Your task to perform on an android device: Add "asus rog" to the cart on bestbuy, then select checkout. Image 0: 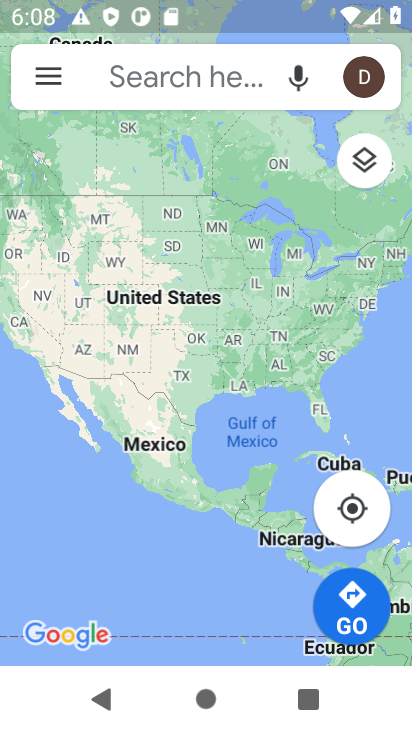
Step 0: press home button
Your task to perform on an android device: Add "asus rog" to the cart on bestbuy, then select checkout. Image 1: 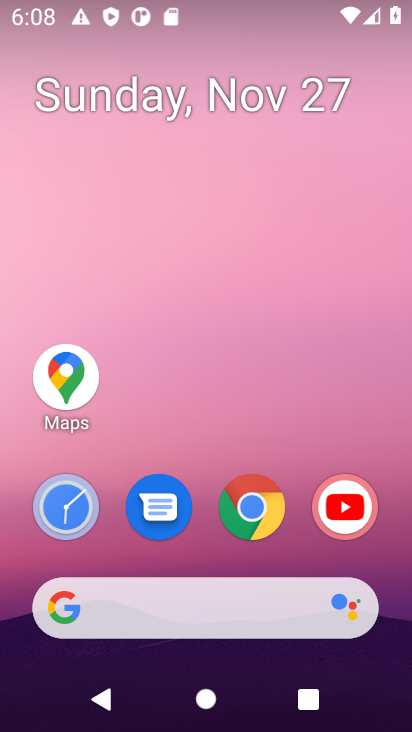
Step 1: click (246, 512)
Your task to perform on an android device: Add "asus rog" to the cart on bestbuy, then select checkout. Image 2: 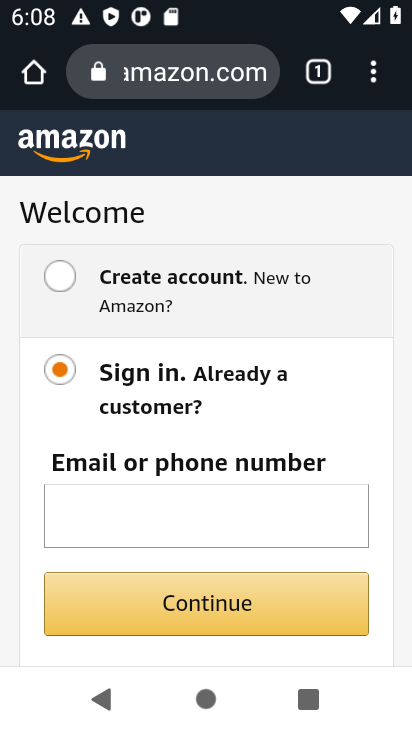
Step 2: click (182, 63)
Your task to perform on an android device: Add "asus rog" to the cart on bestbuy, then select checkout. Image 3: 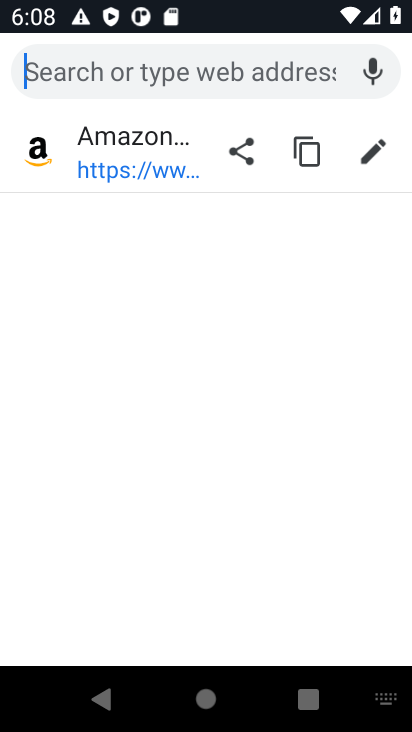
Step 3: type "besrbuy.com"
Your task to perform on an android device: Add "asus rog" to the cart on bestbuy, then select checkout. Image 4: 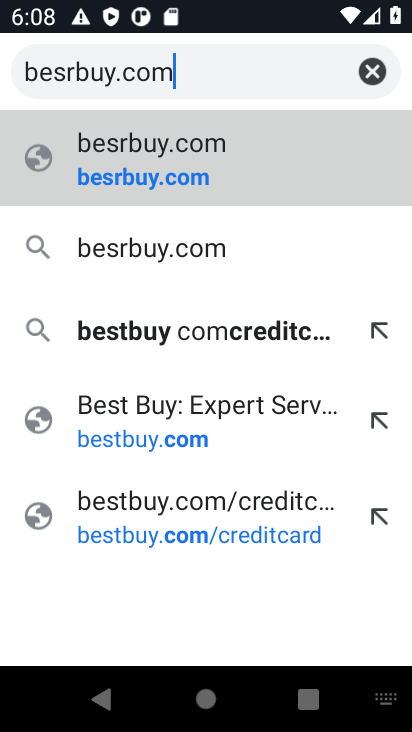
Step 4: click (66, 66)
Your task to perform on an android device: Add "asus rog" to the cart on bestbuy, then select checkout. Image 5: 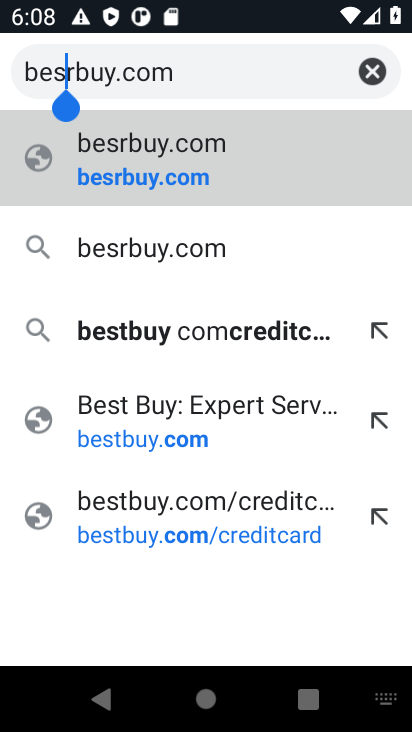
Step 5: click (153, 411)
Your task to perform on an android device: Add "asus rog" to the cart on bestbuy, then select checkout. Image 6: 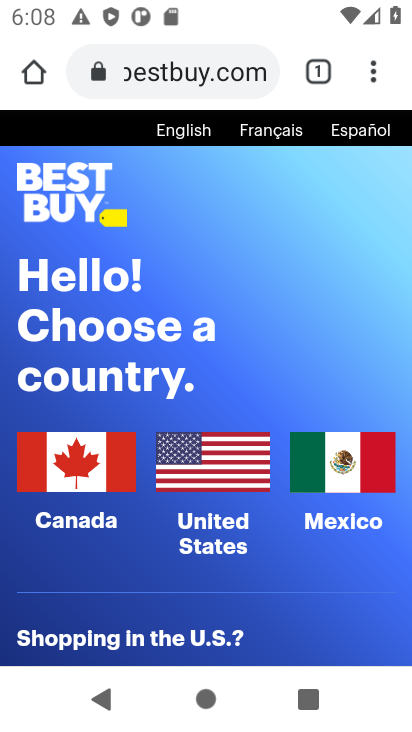
Step 6: click (206, 496)
Your task to perform on an android device: Add "asus rog" to the cart on bestbuy, then select checkout. Image 7: 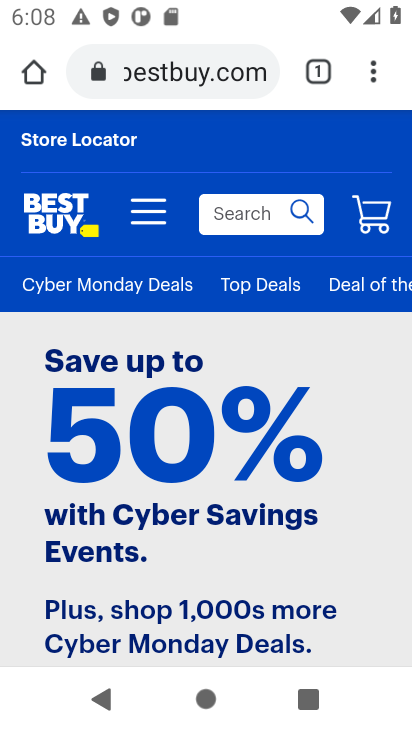
Step 7: click (225, 215)
Your task to perform on an android device: Add "asus rog" to the cart on bestbuy, then select checkout. Image 8: 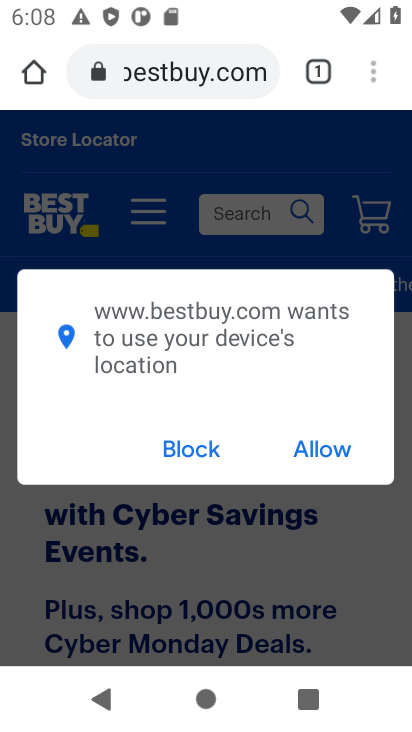
Step 8: click (334, 461)
Your task to perform on an android device: Add "asus rog" to the cart on bestbuy, then select checkout. Image 9: 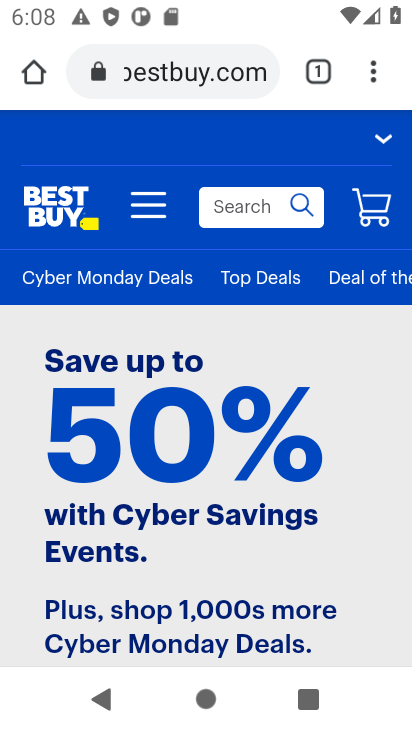
Step 9: click (326, 450)
Your task to perform on an android device: Add "asus rog" to the cart on bestbuy, then select checkout. Image 10: 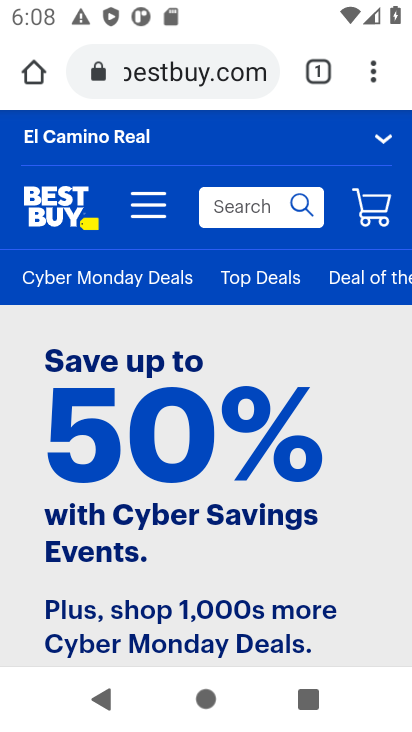
Step 10: click (243, 209)
Your task to perform on an android device: Add "asus rog" to the cart on bestbuy, then select checkout. Image 11: 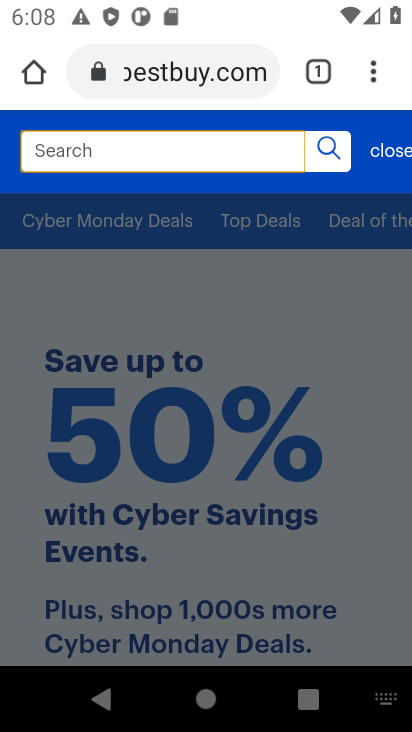
Step 11: type "asus rog"
Your task to perform on an android device: Add "asus rog" to the cart on bestbuy, then select checkout. Image 12: 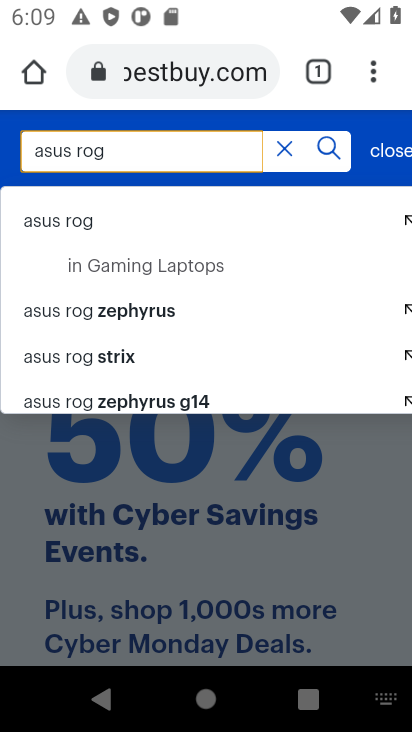
Step 12: click (76, 220)
Your task to perform on an android device: Add "asus rog" to the cart on bestbuy, then select checkout. Image 13: 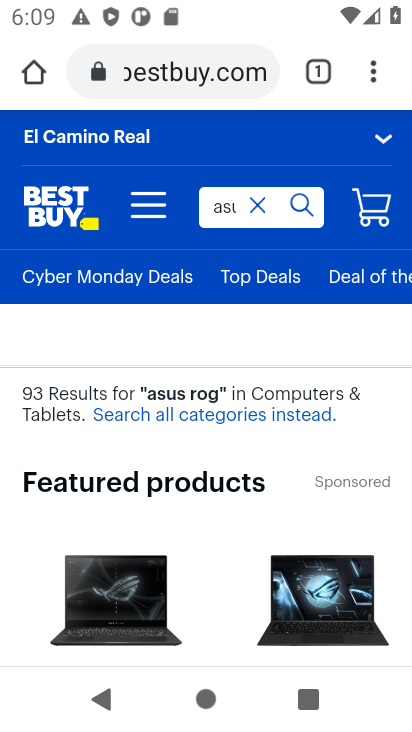
Step 13: drag from (226, 553) to (213, 303)
Your task to perform on an android device: Add "asus rog" to the cart on bestbuy, then select checkout. Image 14: 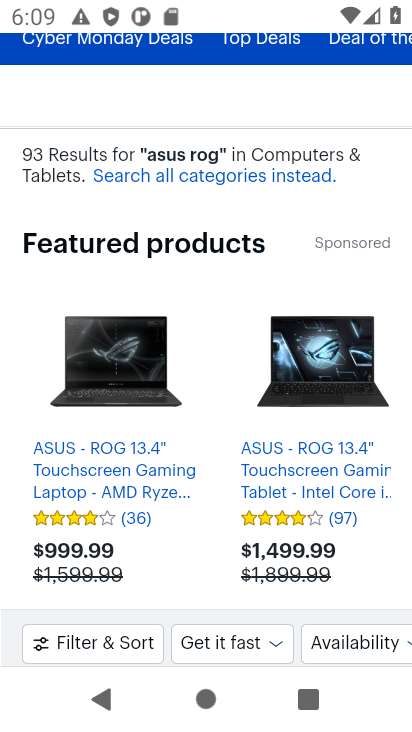
Step 14: click (125, 415)
Your task to perform on an android device: Add "asus rog" to the cart on bestbuy, then select checkout. Image 15: 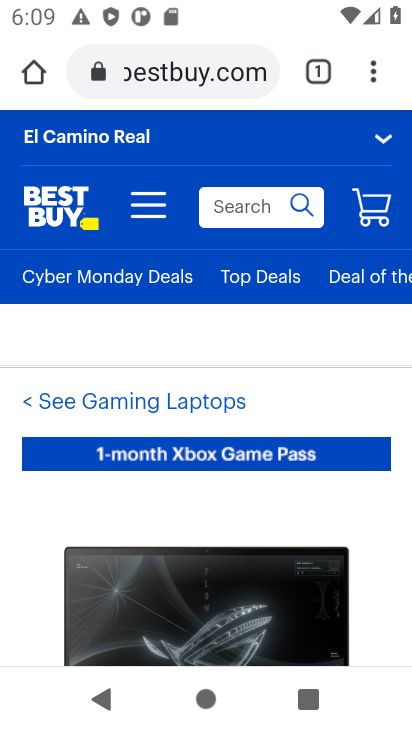
Step 15: drag from (278, 581) to (273, 220)
Your task to perform on an android device: Add "asus rog" to the cart on bestbuy, then select checkout. Image 16: 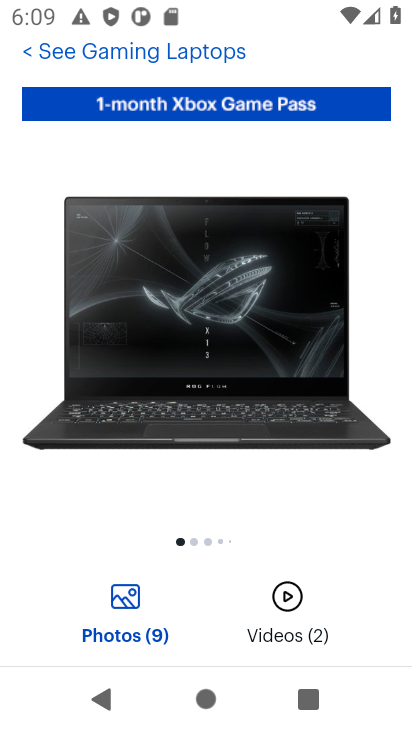
Step 16: drag from (191, 587) to (215, 79)
Your task to perform on an android device: Add "asus rog" to the cart on bestbuy, then select checkout. Image 17: 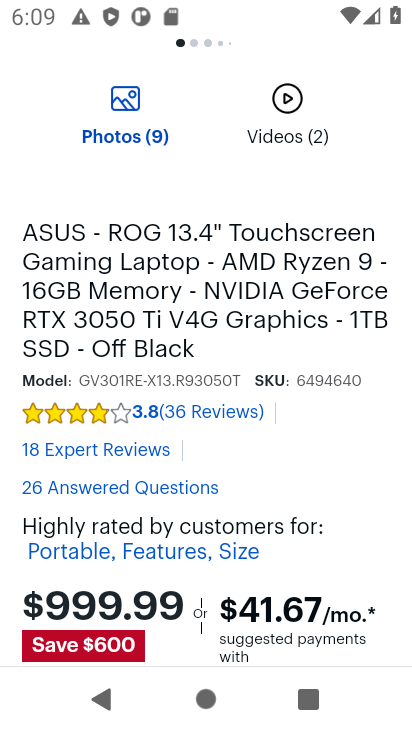
Step 17: drag from (238, 493) to (247, 45)
Your task to perform on an android device: Add "asus rog" to the cart on bestbuy, then select checkout. Image 18: 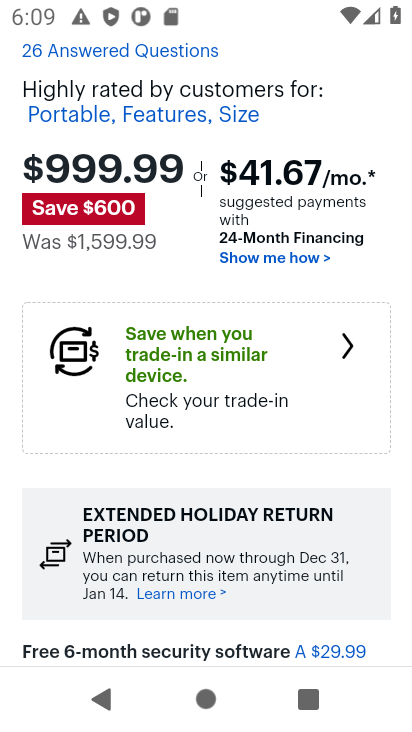
Step 18: drag from (203, 577) to (256, 155)
Your task to perform on an android device: Add "asus rog" to the cart on bestbuy, then select checkout. Image 19: 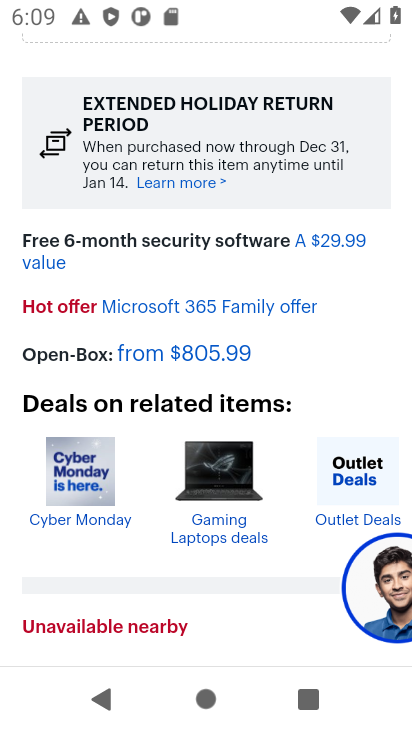
Step 19: drag from (195, 619) to (188, 237)
Your task to perform on an android device: Add "asus rog" to the cart on bestbuy, then select checkout. Image 20: 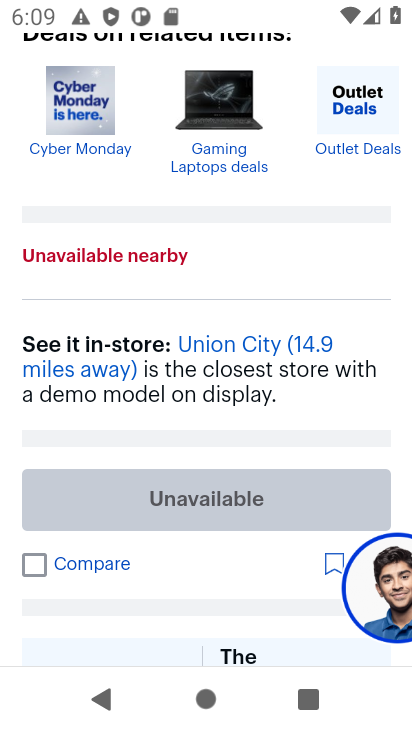
Step 20: press back button
Your task to perform on an android device: Add "asus rog" to the cart on bestbuy, then select checkout. Image 21: 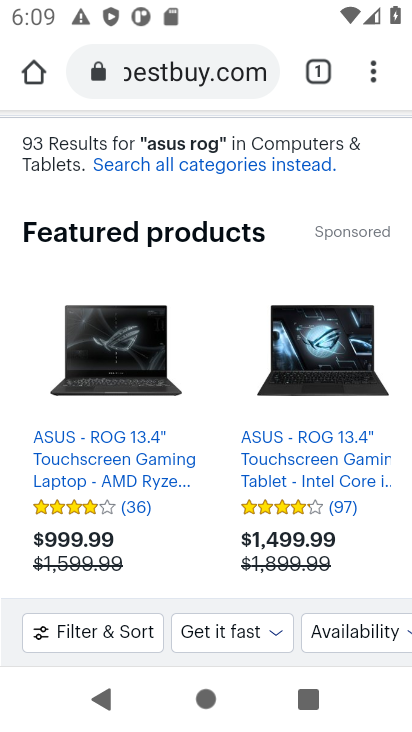
Step 21: click (314, 386)
Your task to perform on an android device: Add "asus rog" to the cart on bestbuy, then select checkout. Image 22: 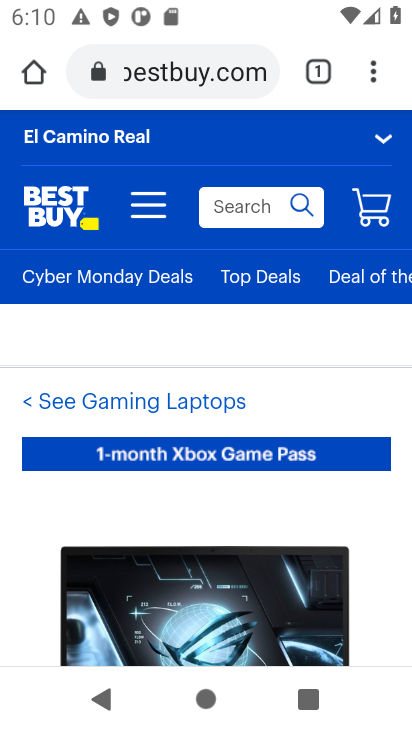
Step 22: drag from (258, 598) to (204, 266)
Your task to perform on an android device: Add "asus rog" to the cart on bestbuy, then select checkout. Image 23: 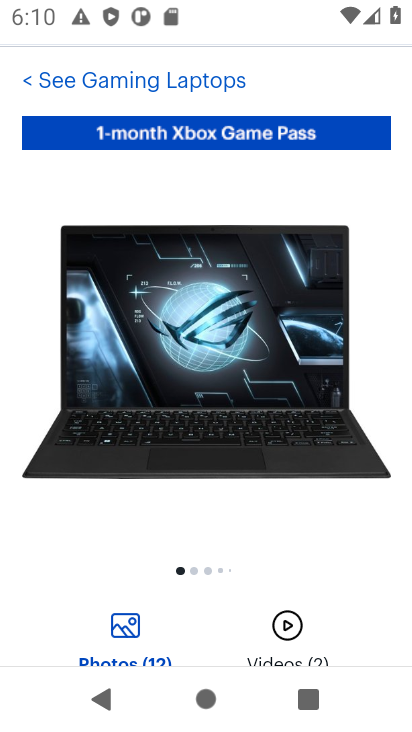
Step 23: drag from (218, 580) to (256, 249)
Your task to perform on an android device: Add "asus rog" to the cart on bestbuy, then select checkout. Image 24: 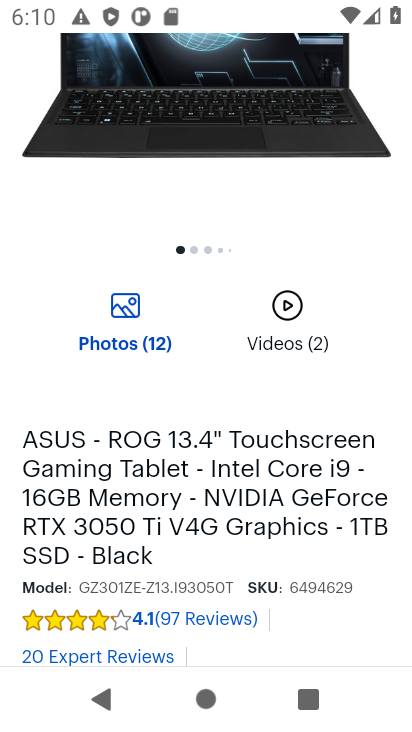
Step 24: drag from (233, 564) to (262, 269)
Your task to perform on an android device: Add "asus rog" to the cart on bestbuy, then select checkout. Image 25: 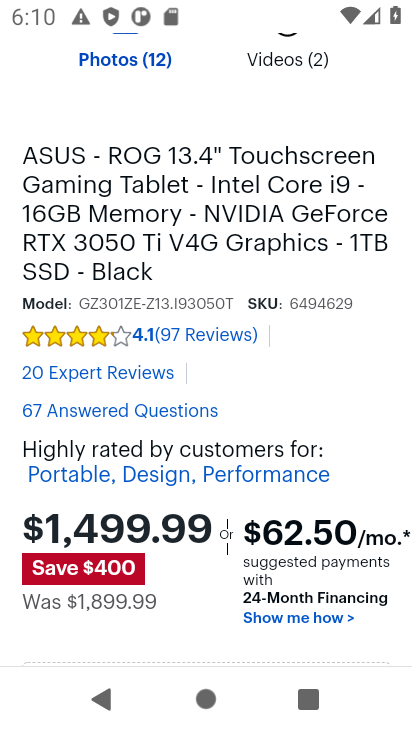
Step 25: drag from (249, 594) to (273, 313)
Your task to perform on an android device: Add "asus rog" to the cart on bestbuy, then select checkout. Image 26: 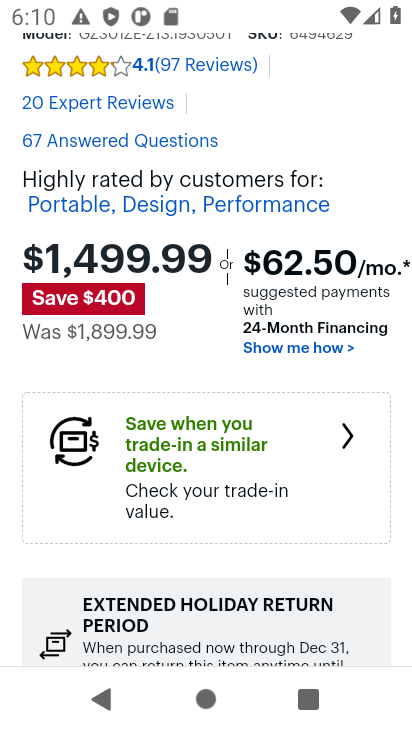
Step 26: drag from (235, 611) to (263, 359)
Your task to perform on an android device: Add "asus rog" to the cart on bestbuy, then select checkout. Image 27: 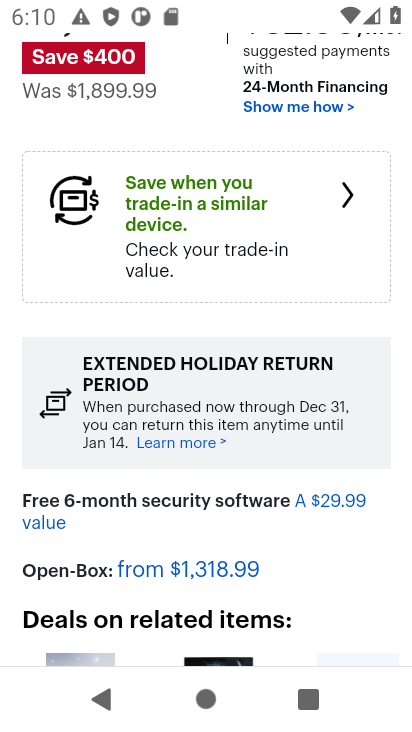
Step 27: drag from (255, 580) to (290, 258)
Your task to perform on an android device: Add "asus rog" to the cart on bestbuy, then select checkout. Image 28: 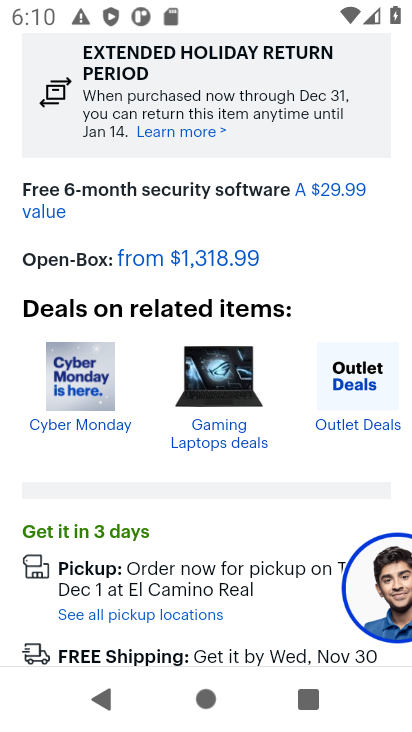
Step 28: drag from (220, 616) to (218, 379)
Your task to perform on an android device: Add "asus rog" to the cart on bestbuy, then select checkout. Image 29: 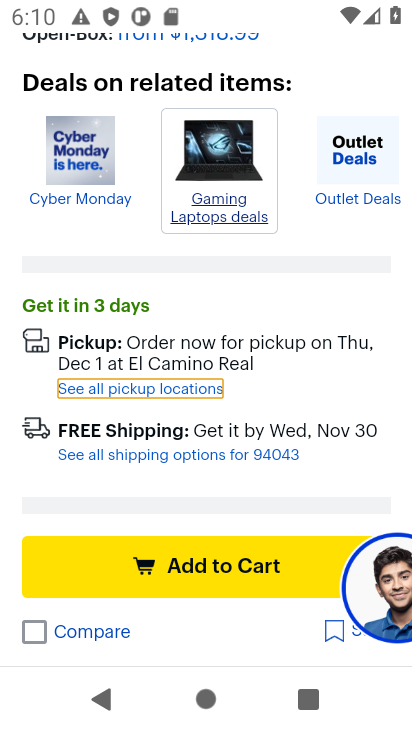
Step 29: click (199, 563)
Your task to perform on an android device: Add "asus rog" to the cart on bestbuy, then select checkout. Image 30: 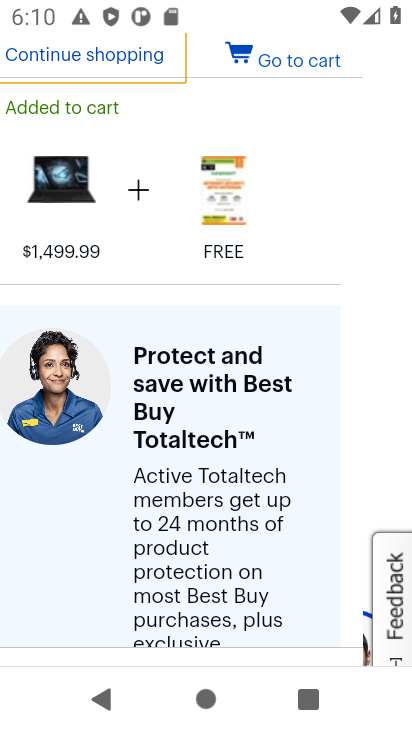
Step 30: click (268, 54)
Your task to perform on an android device: Add "asus rog" to the cart on bestbuy, then select checkout. Image 31: 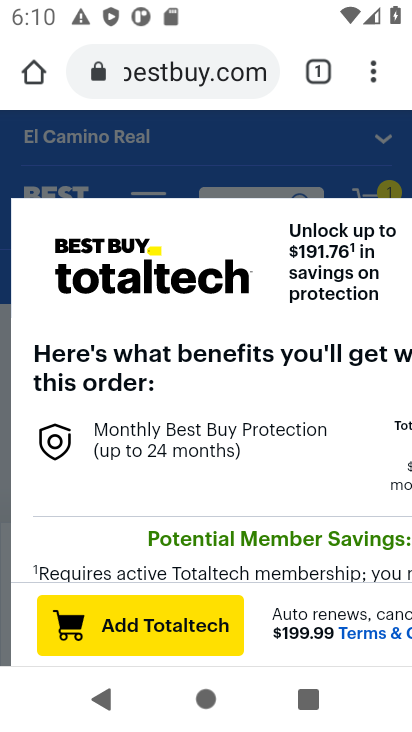
Step 31: drag from (340, 234) to (31, 257)
Your task to perform on an android device: Add "asus rog" to the cart on bestbuy, then select checkout. Image 32: 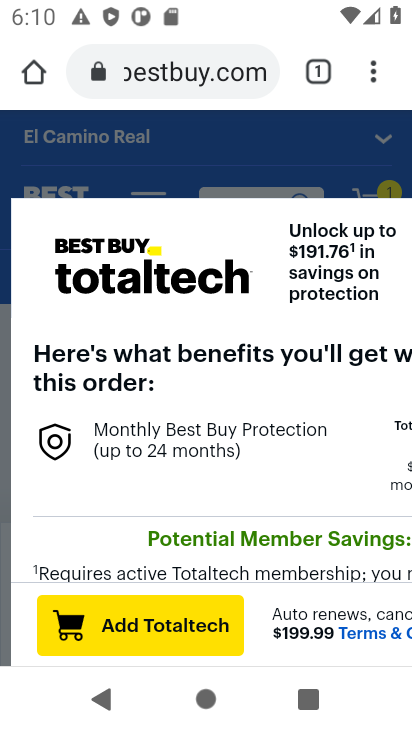
Step 32: drag from (345, 570) to (314, 188)
Your task to perform on an android device: Add "asus rog" to the cart on bestbuy, then select checkout. Image 33: 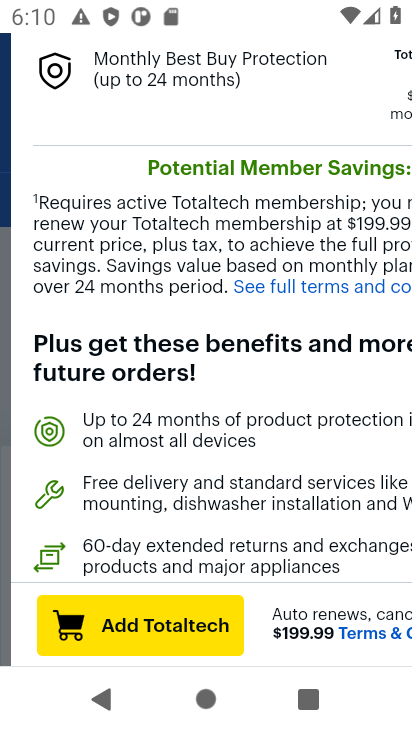
Step 33: drag from (218, 571) to (251, 152)
Your task to perform on an android device: Add "asus rog" to the cart on bestbuy, then select checkout. Image 34: 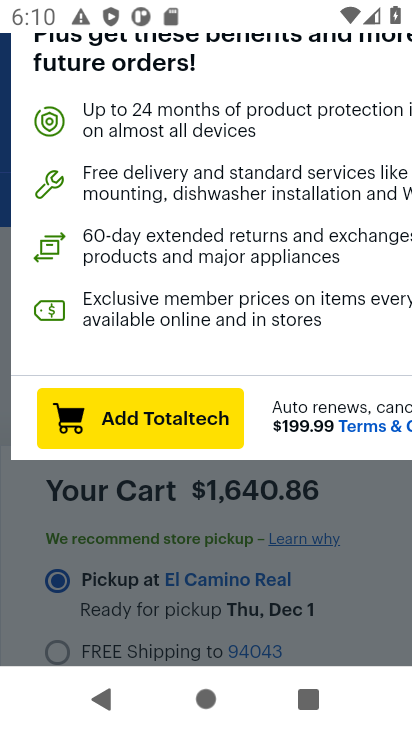
Step 34: click (154, 613)
Your task to perform on an android device: Add "asus rog" to the cart on bestbuy, then select checkout. Image 35: 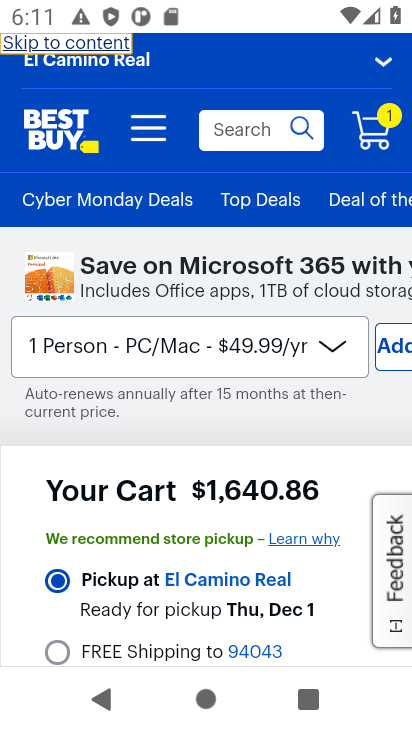
Step 35: drag from (242, 433) to (254, 366)
Your task to perform on an android device: Add "asus rog" to the cart on bestbuy, then select checkout. Image 36: 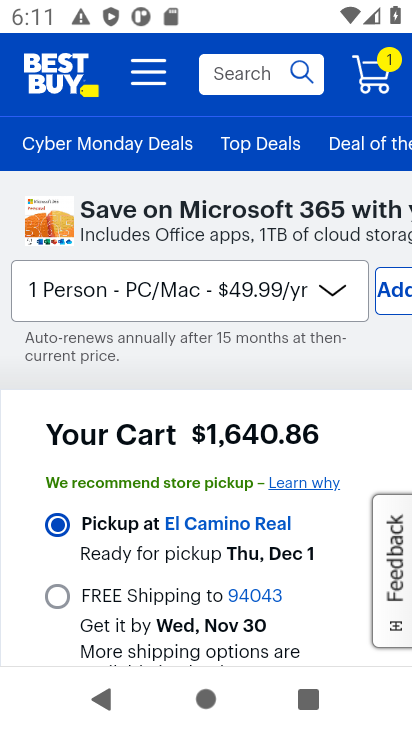
Step 36: drag from (268, 552) to (257, 336)
Your task to perform on an android device: Add "asus rog" to the cart on bestbuy, then select checkout. Image 37: 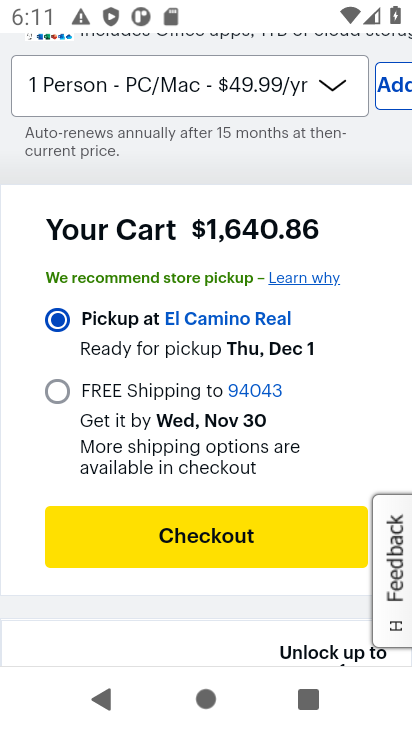
Step 37: click (212, 541)
Your task to perform on an android device: Add "asus rog" to the cart on bestbuy, then select checkout. Image 38: 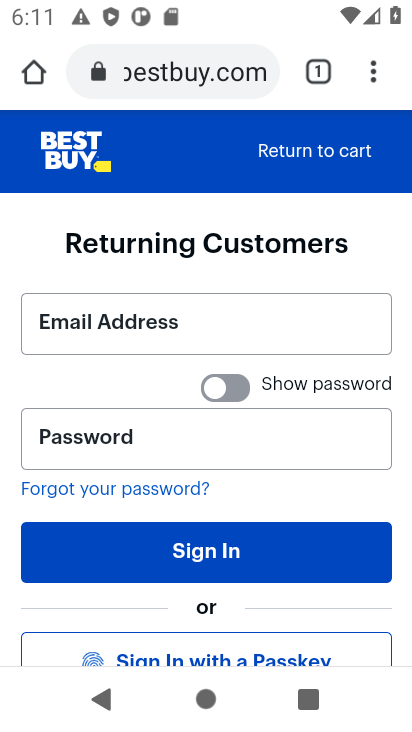
Step 38: task complete